Your task to perform on an android device: Clear the cart on newegg.com. Search for "macbook pro" on newegg.com, select the first entry, add it to the cart, then select checkout. Image 0: 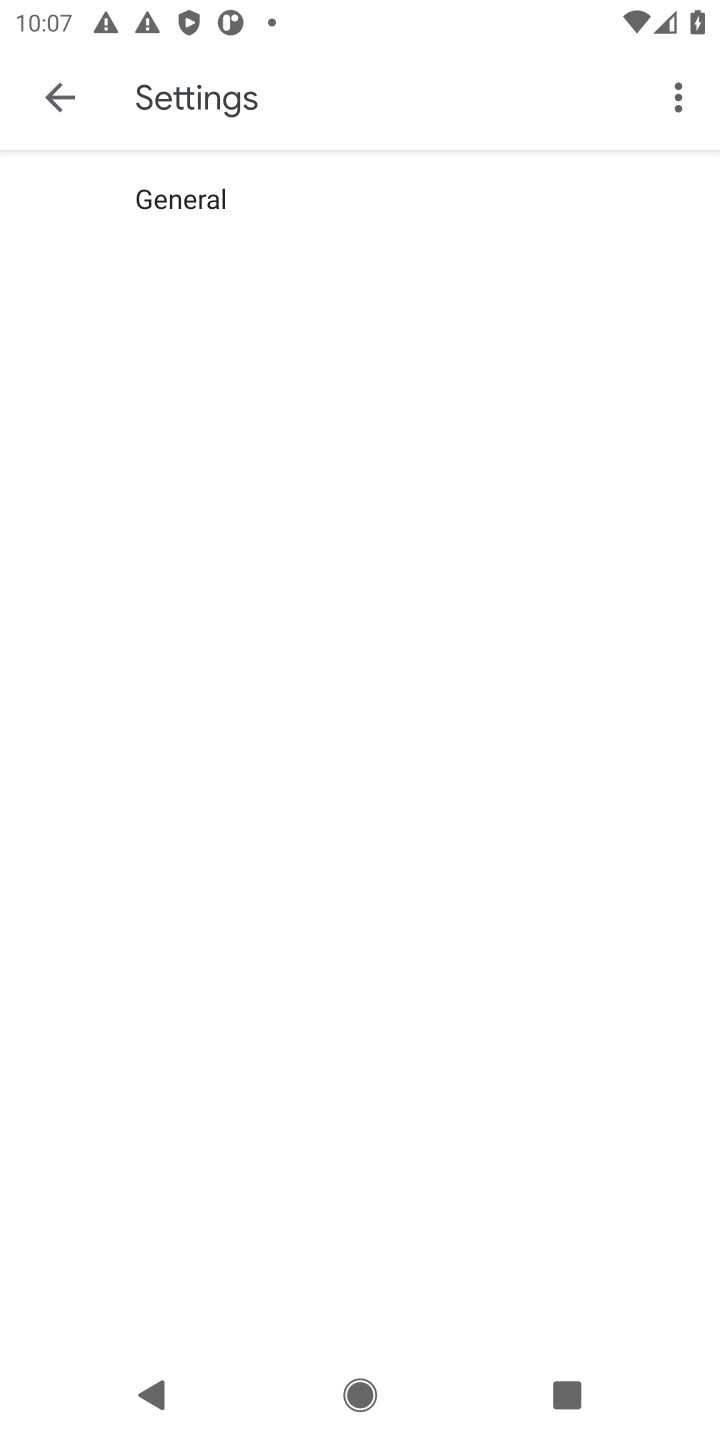
Step 0: press home button
Your task to perform on an android device: Clear the cart on newegg.com. Search for "macbook pro" on newegg.com, select the first entry, add it to the cart, then select checkout. Image 1: 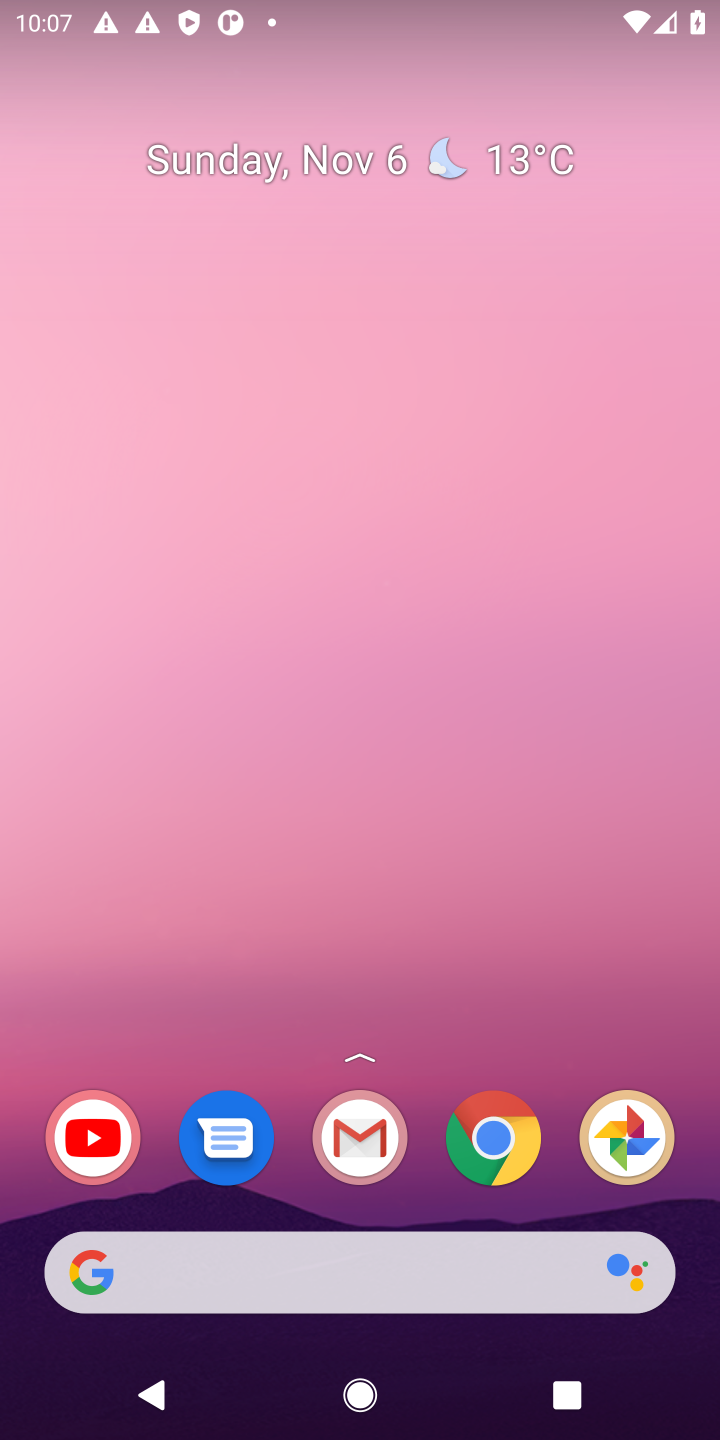
Step 1: click (489, 1137)
Your task to perform on an android device: Clear the cart on newegg.com. Search for "macbook pro" on newegg.com, select the first entry, add it to the cart, then select checkout. Image 2: 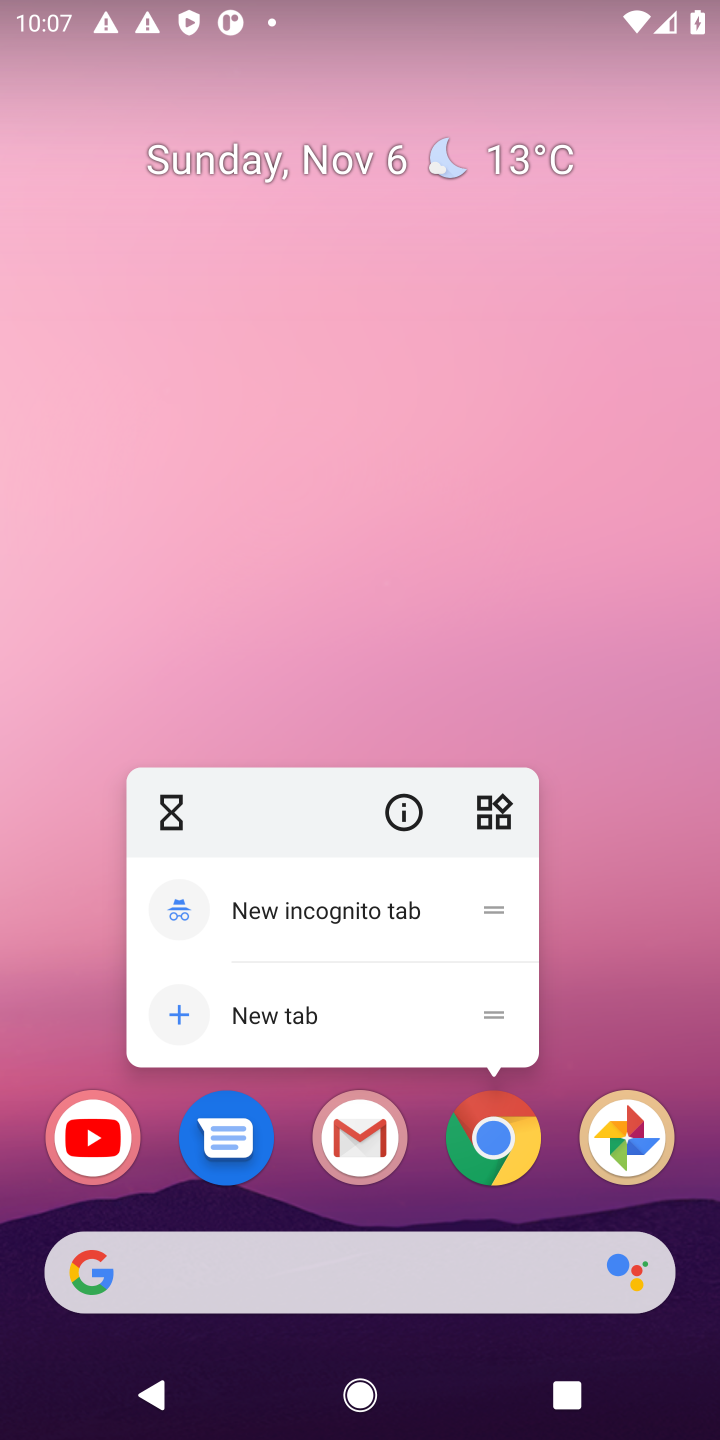
Step 2: click (495, 1137)
Your task to perform on an android device: Clear the cart on newegg.com. Search for "macbook pro" on newegg.com, select the first entry, add it to the cart, then select checkout. Image 3: 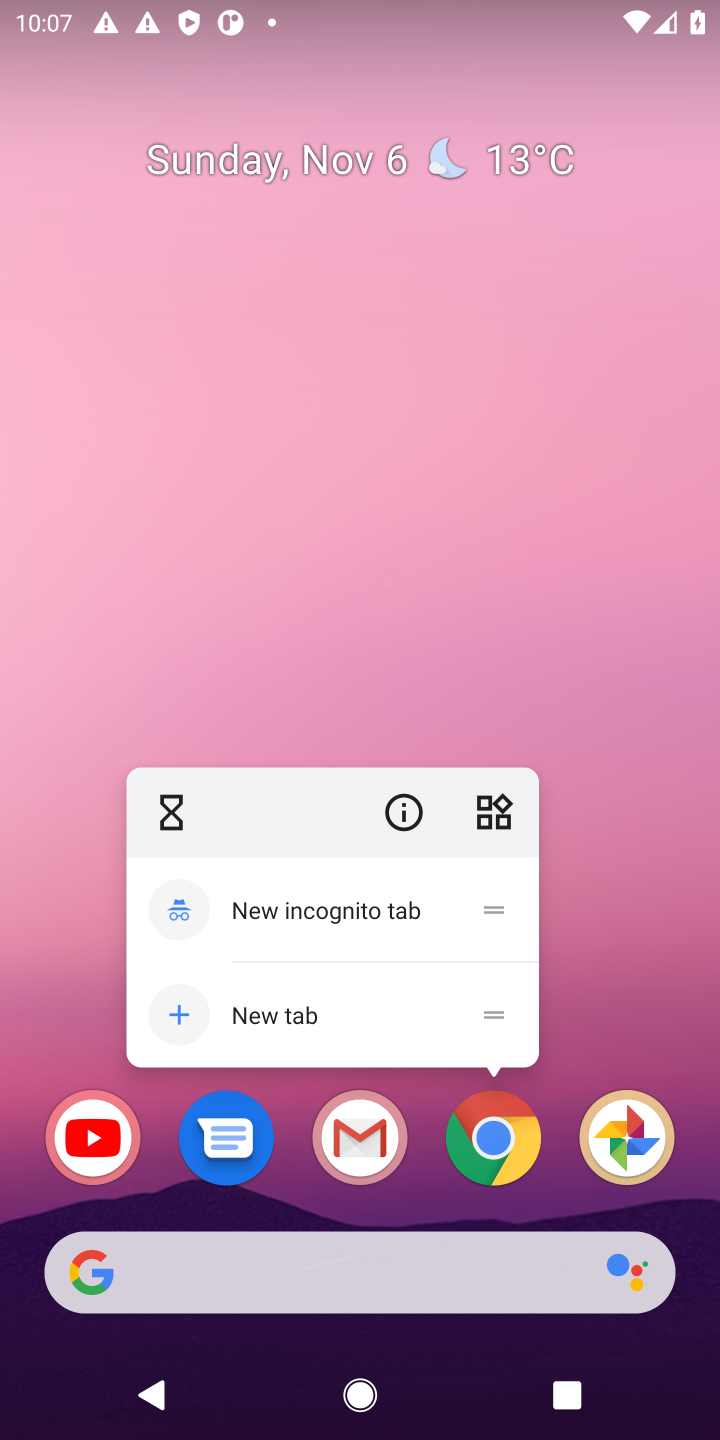
Step 3: click (495, 1157)
Your task to perform on an android device: Clear the cart on newegg.com. Search for "macbook pro" on newegg.com, select the first entry, add it to the cart, then select checkout. Image 4: 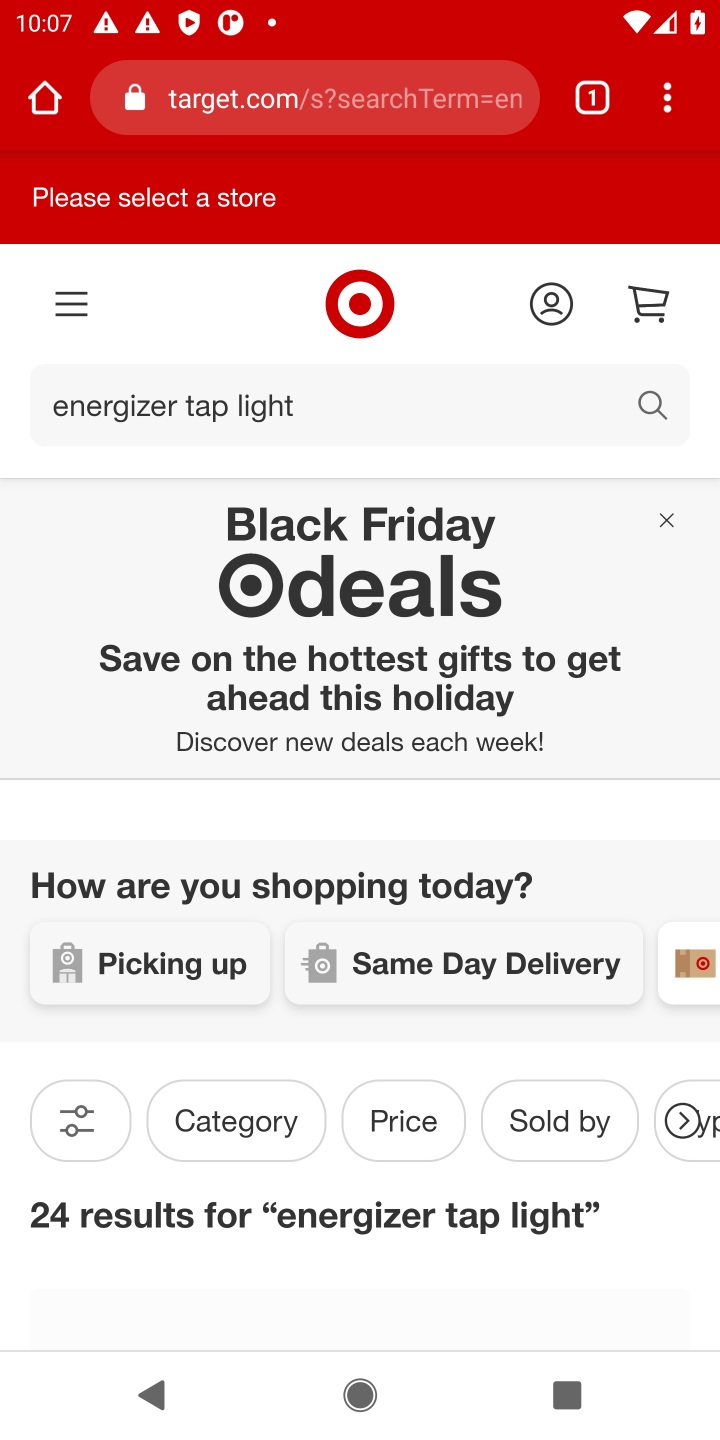
Step 4: click (381, 63)
Your task to perform on an android device: Clear the cart on newegg.com. Search for "macbook pro" on newegg.com, select the first entry, add it to the cart, then select checkout. Image 5: 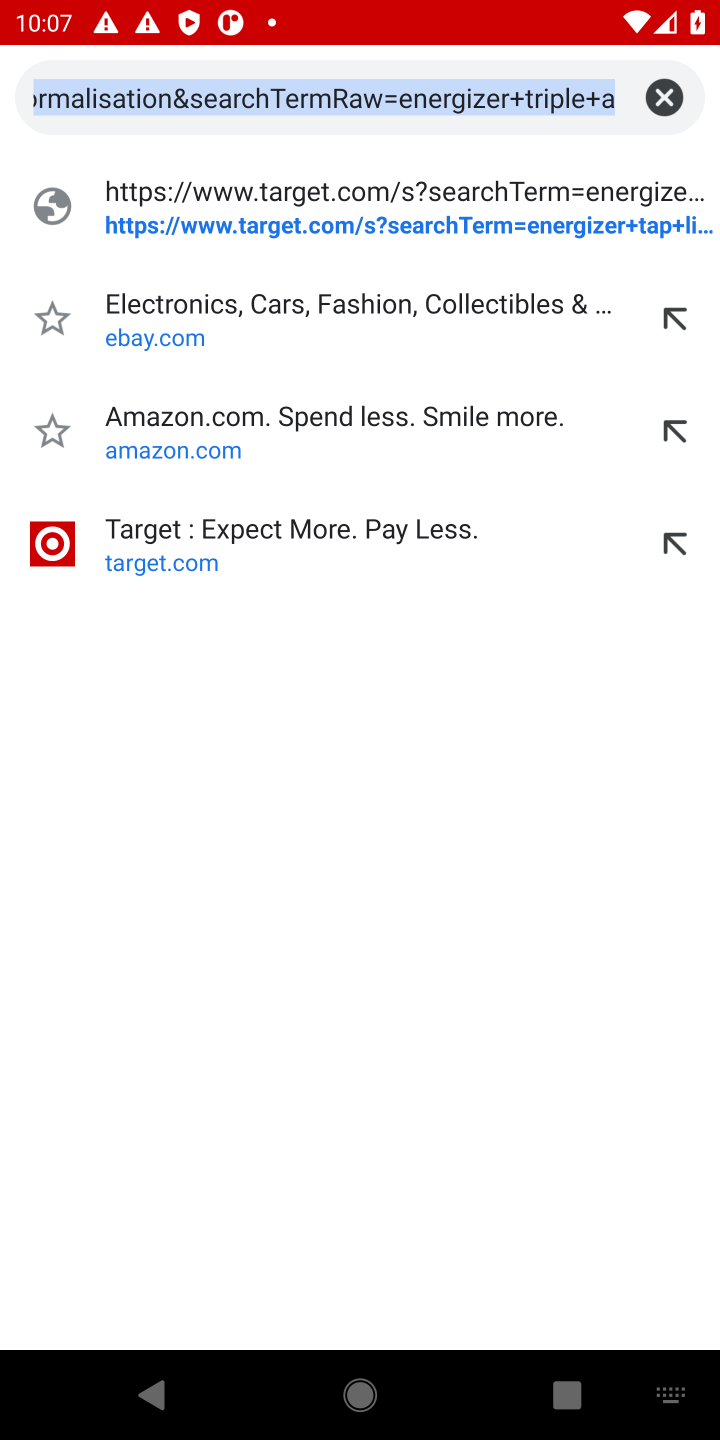
Step 5: click (669, 99)
Your task to perform on an android device: Clear the cart on newegg.com. Search for "macbook pro" on newegg.com, select the first entry, add it to the cart, then select checkout. Image 6: 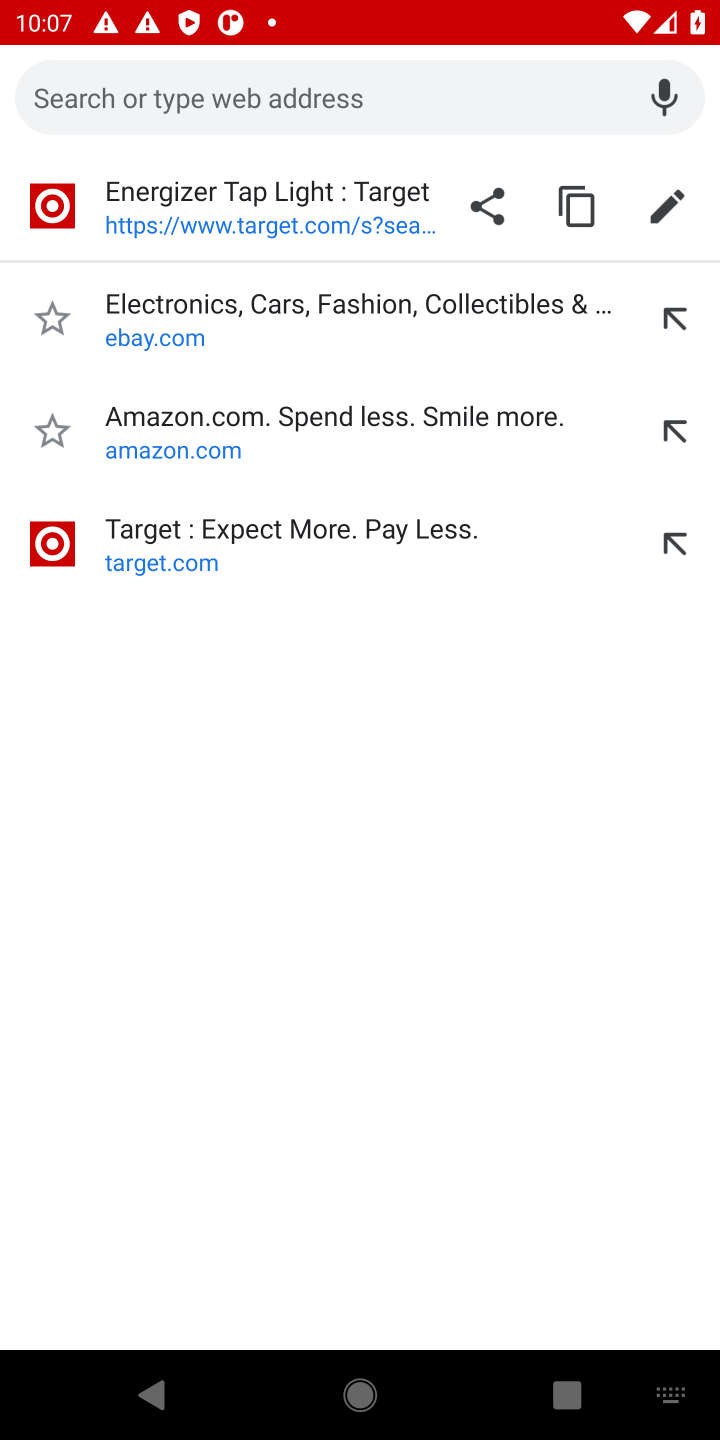
Step 6: type "newegg.com"
Your task to perform on an android device: Clear the cart on newegg.com. Search for "macbook pro" on newegg.com, select the first entry, add it to the cart, then select checkout. Image 7: 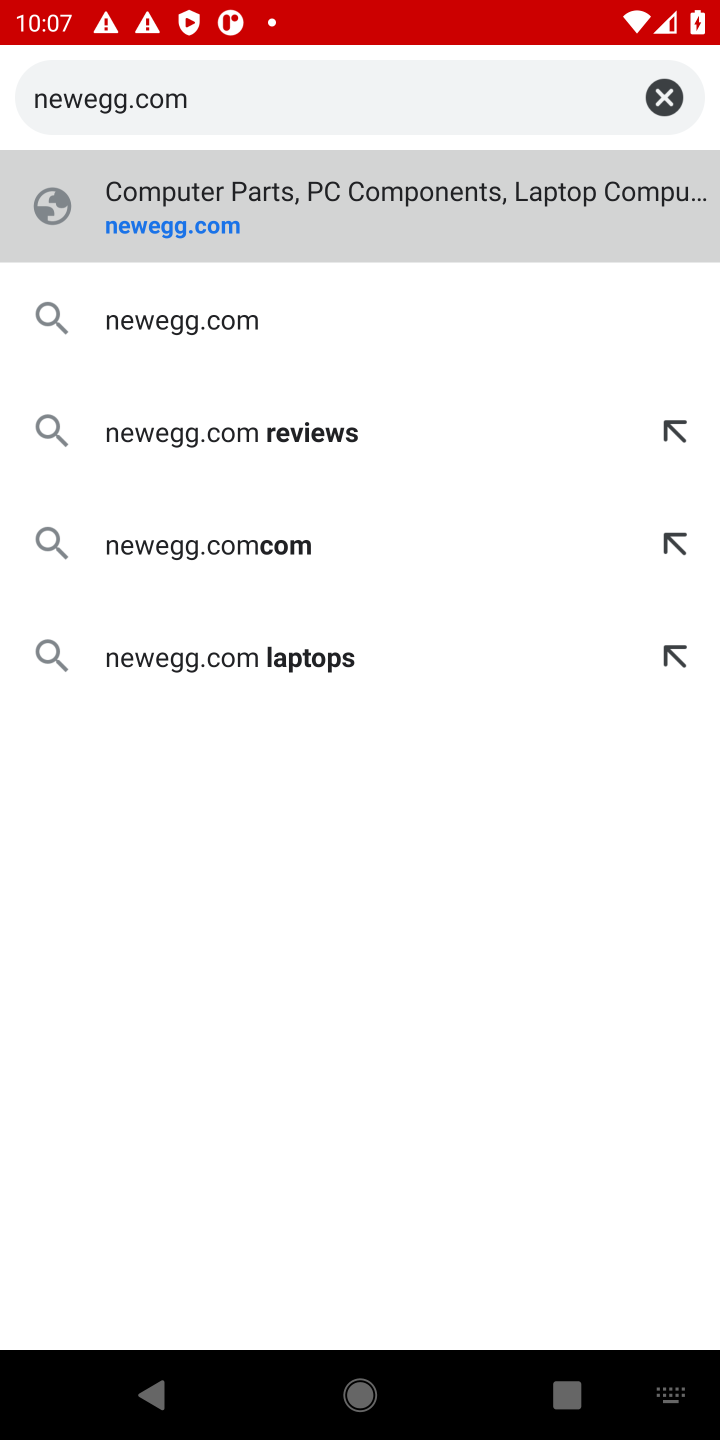
Step 7: click (180, 206)
Your task to perform on an android device: Clear the cart on newegg.com. Search for "macbook pro" on newegg.com, select the first entry, add it to the cart, then select checkout. Image 8: 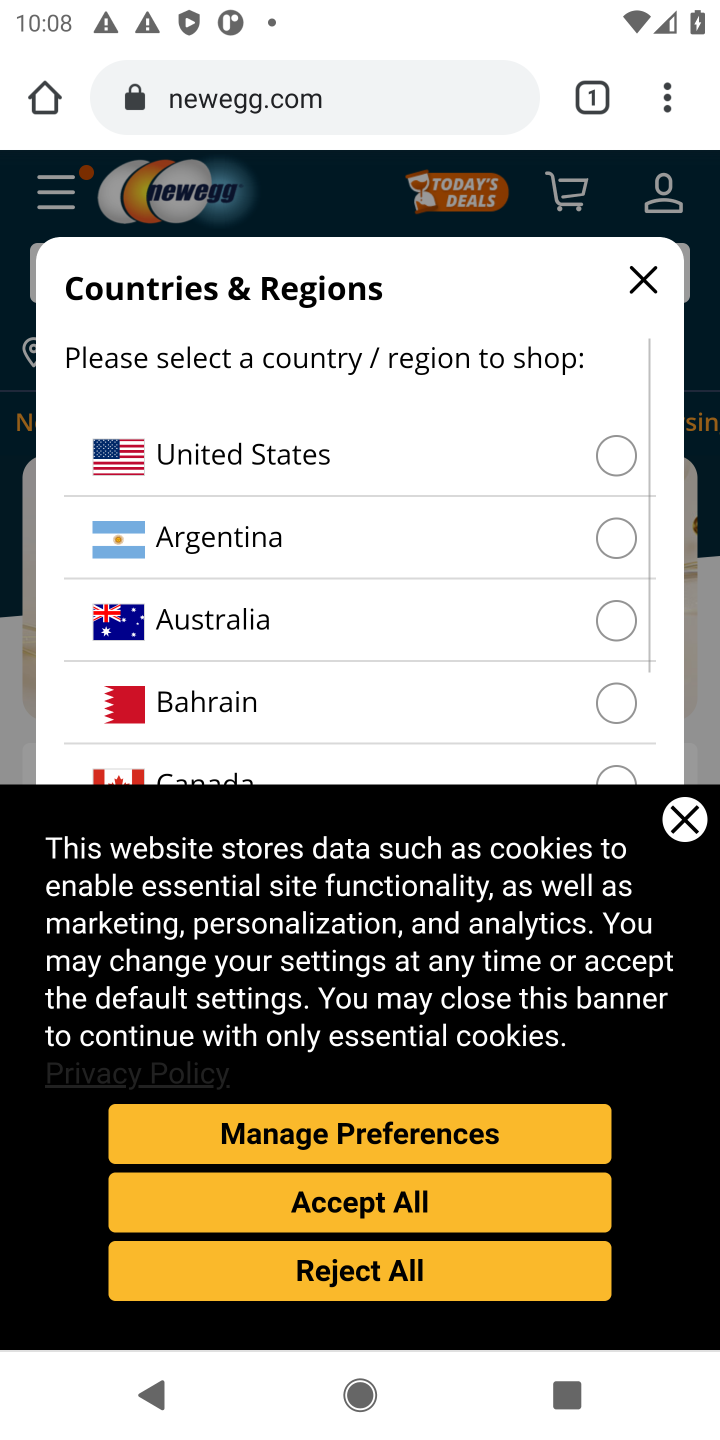
Step 8: click (617, 454)
Your task to perform on an android device: Clear the cart on newegg.com. Search for "macbook pro" on newegg.com, select the first entry, add it to the cart, then select checkout. Image 9: 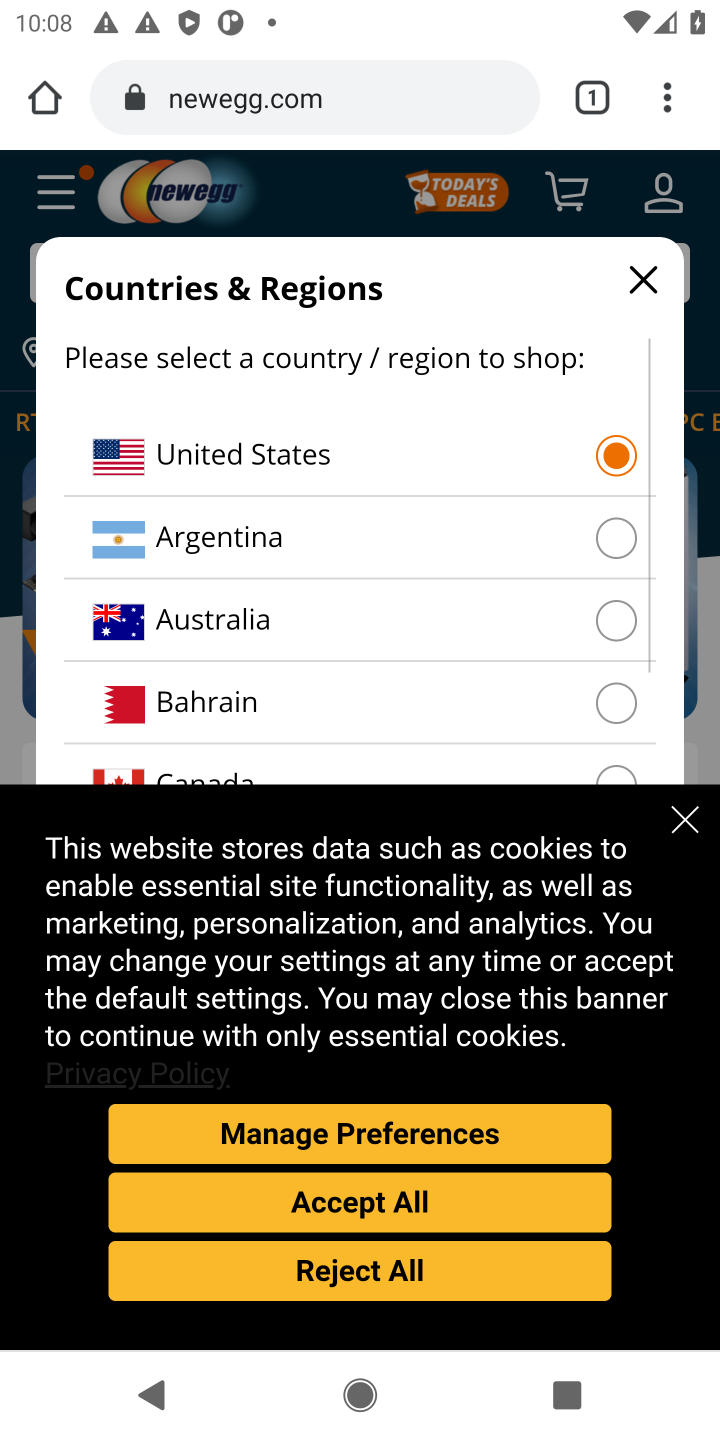
Step 9: click (328, 1203)
Your task to perform on an android device: Clear the cart on newegg.com. Search for "macbook pro" on newegg.com, select the first entry, add it to the cart, then select checkout. Image 10: 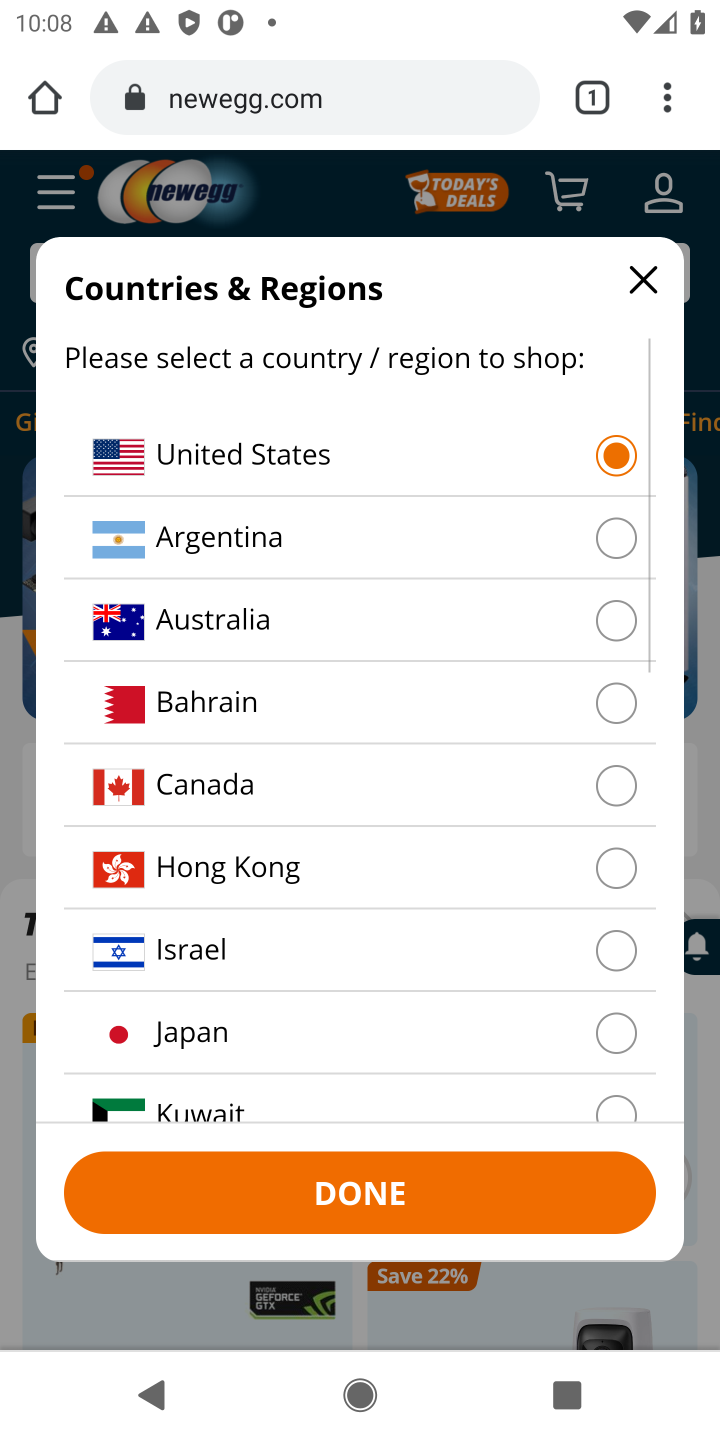
Step 10: click (386, 1183)
Your task to perform on an android device: Clear the cart on newegg.com. Search for "macbook pro" on newegg.com, select the first entry, add it to the cart, then select checkout. Image 11: 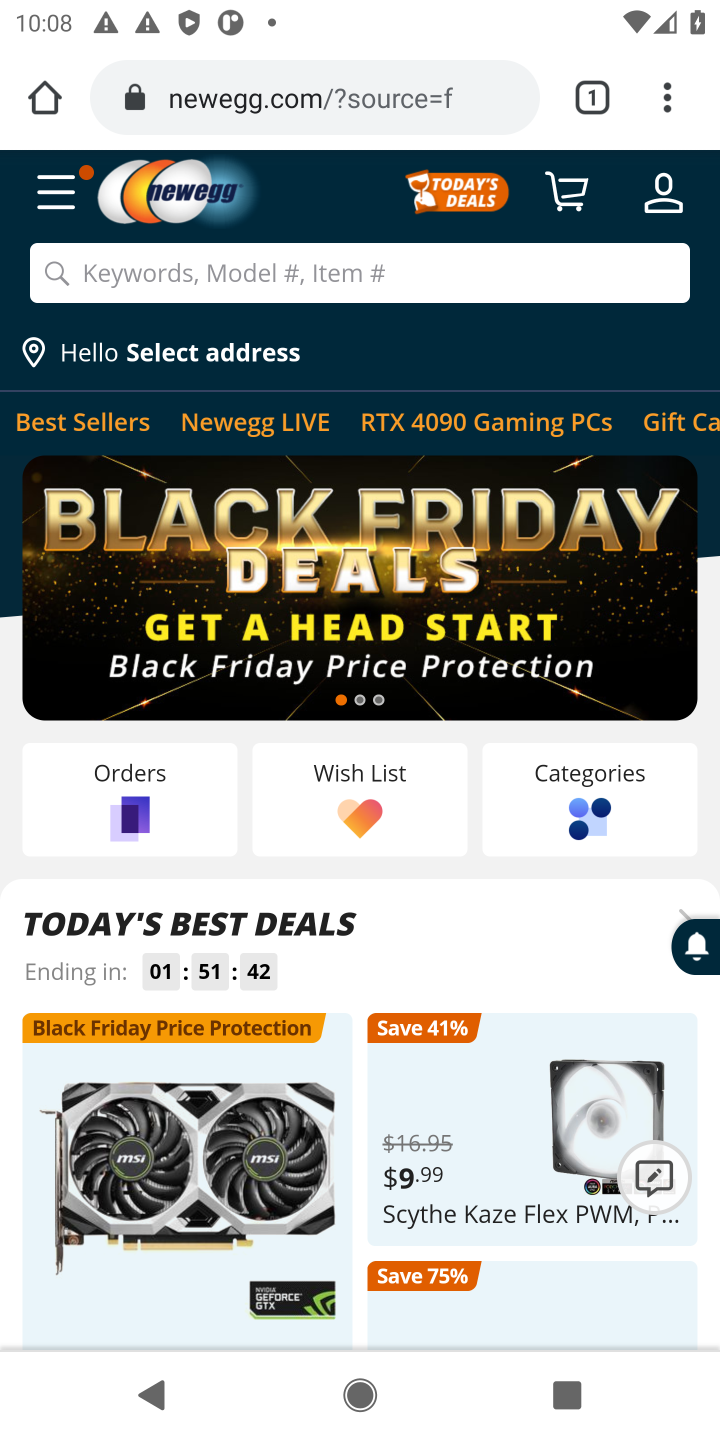
Step 11: click (570, 185)
Your task to perform on an android device: Clear the cart on newegg.com. Search for "macbook pro" on newegg.com, select the first entry, add it to the cart, then select checkout. Image 12: 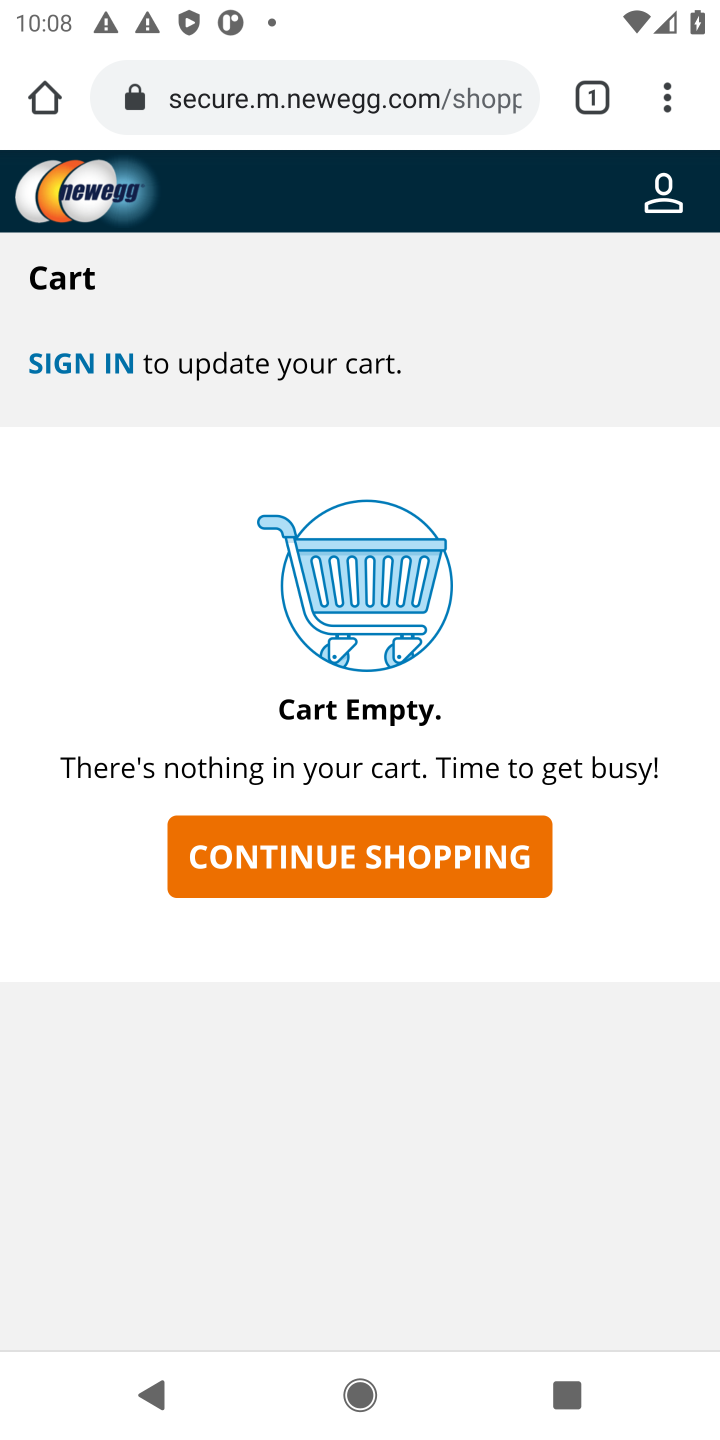
Step 12: click (356, 859)
Your task to perform on an android device: Clear the cart on newegg.com. Search for "macbook pro" on newegg.com, select the first entry, add it to the cart, then select checkout. Image 13: 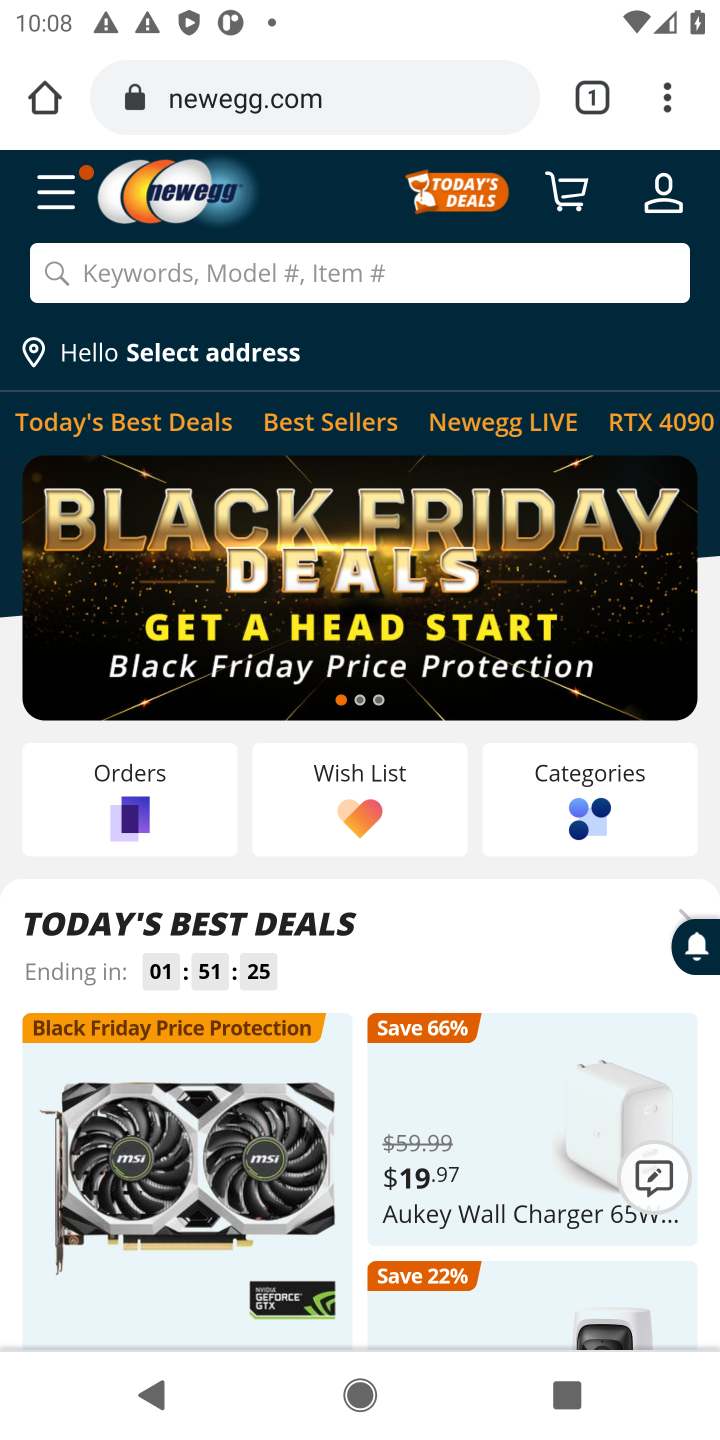
Step 13: click (232, 256)
Your task to perform on an android device: Clear the cart on newegg.com. Search for "macbook pro" on newegg.com, select the first entry, add it to the cart, then select checkout. Image 14: 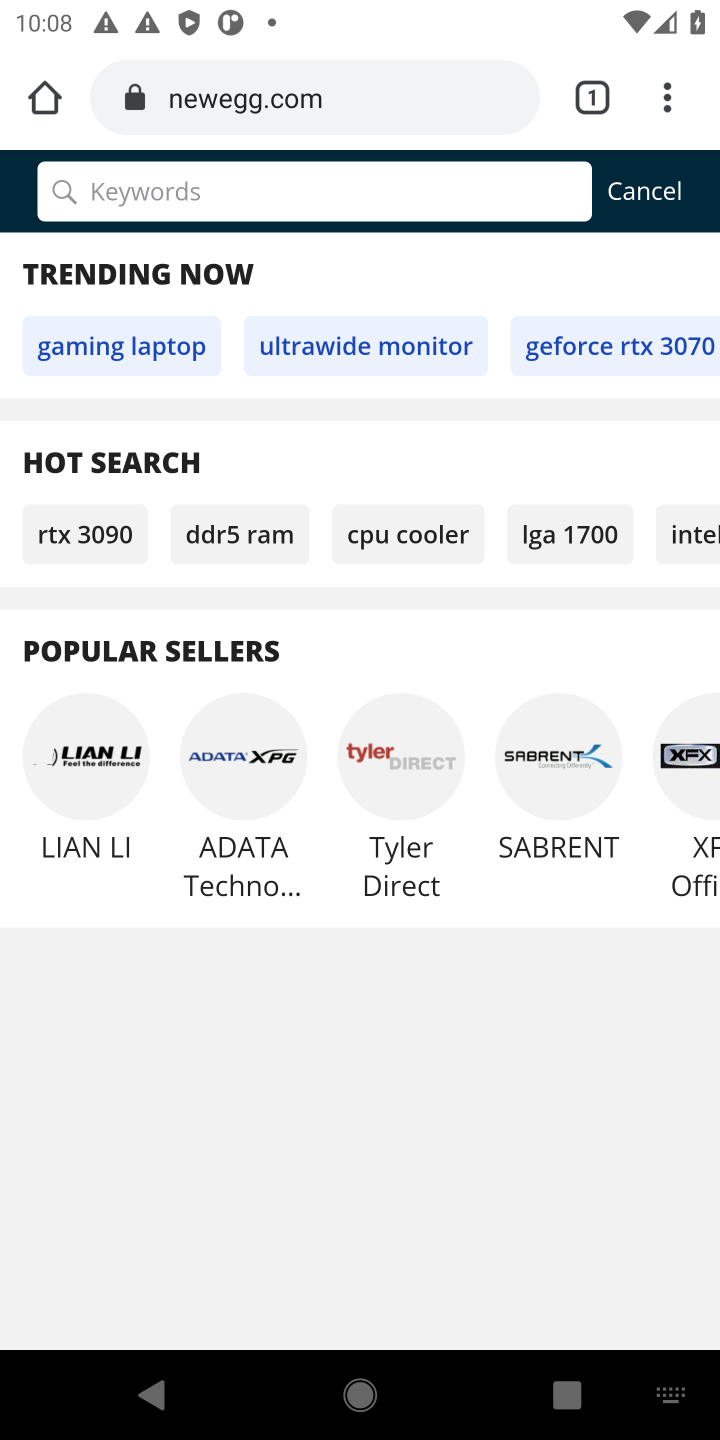
Step 14: type "macbook pro"
Your task to perform on an android device: Clear the cart on newegg.com. Search for "macbook pro" on newegg.com, select the first entry, add it to the cart, then select checkout. Image 15: 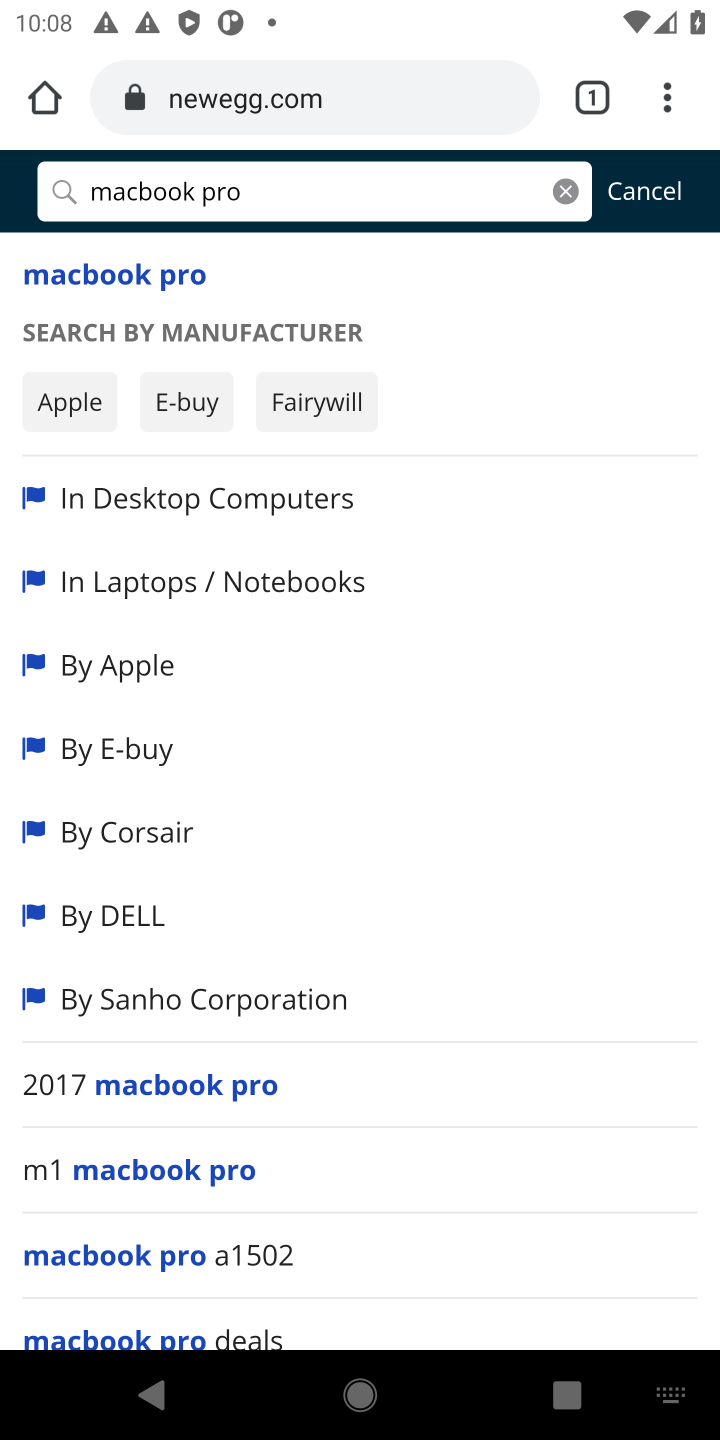
Step 15: click (56, 259)
Your task to perform on an android device: Clear the cart on newegg.com. Search for "macbook pro" on newegg.com, select the first entry, add it to the cart, then select checkout. Image 16: 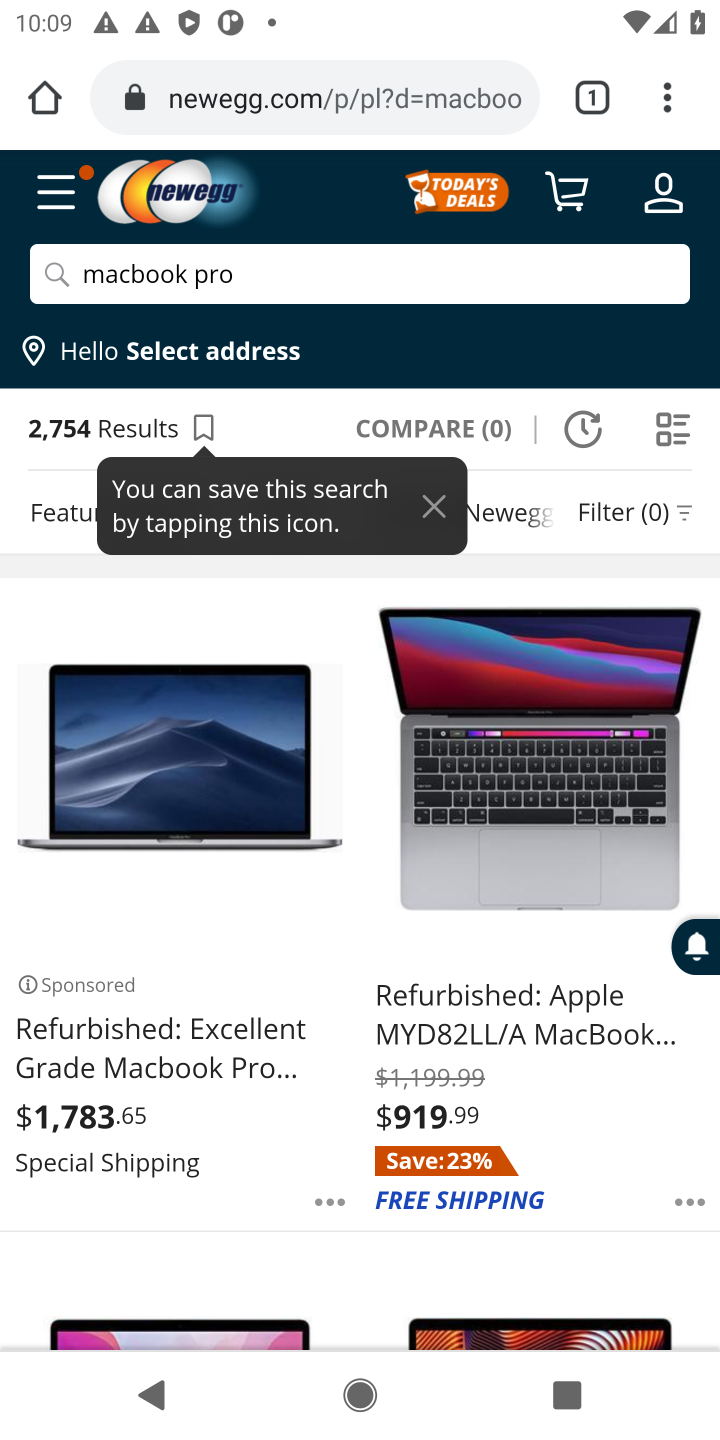
Step 16: click (121, 1052)
Your task to perform on an android device: Clear the cart on newegg.com. Search for "macbook pro" on newegg.com, select the first entry, add it to the cart, then select checkout. Image 17: 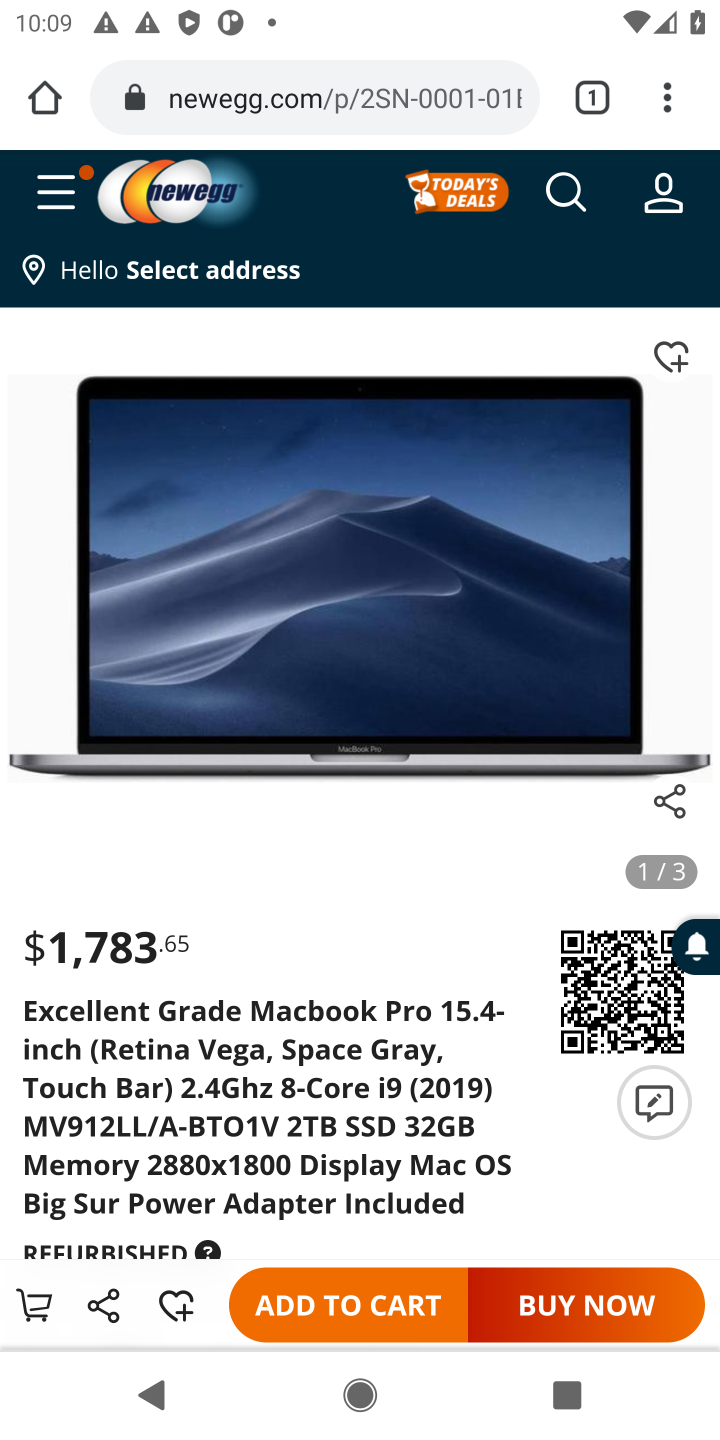
Step 17: click (338, 1298)
Your task to perform on an android device: Clear the cart on newegg.com. Search for "macbook pro" on newegg.com, select the first entry, add it to the cart, then select checkout. Image 18: 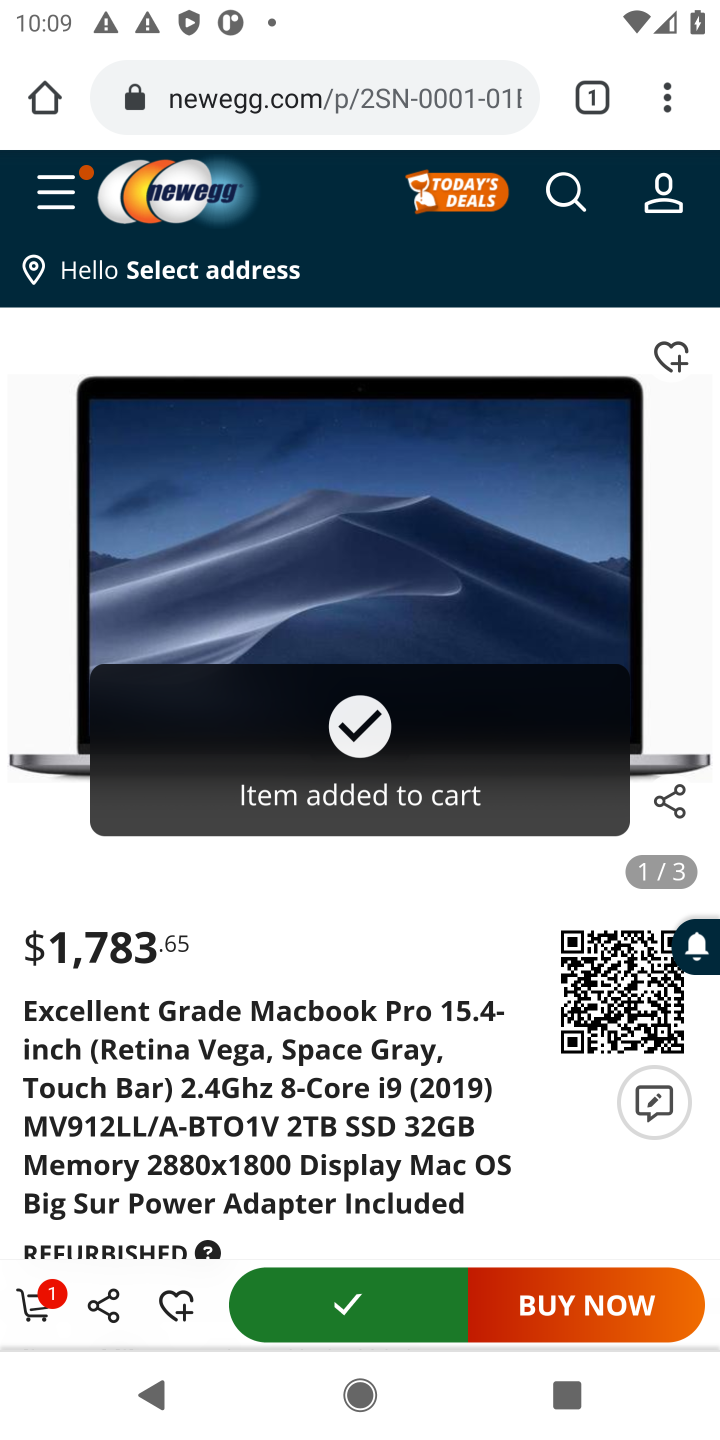
Step 18: click (43, 1302)
Your task to perform on an android device: Clear the cart on newegg.com. Search for "macbook pro" on newegg.com, select the first entry, add it to the cart, then select checkout. Image 19: 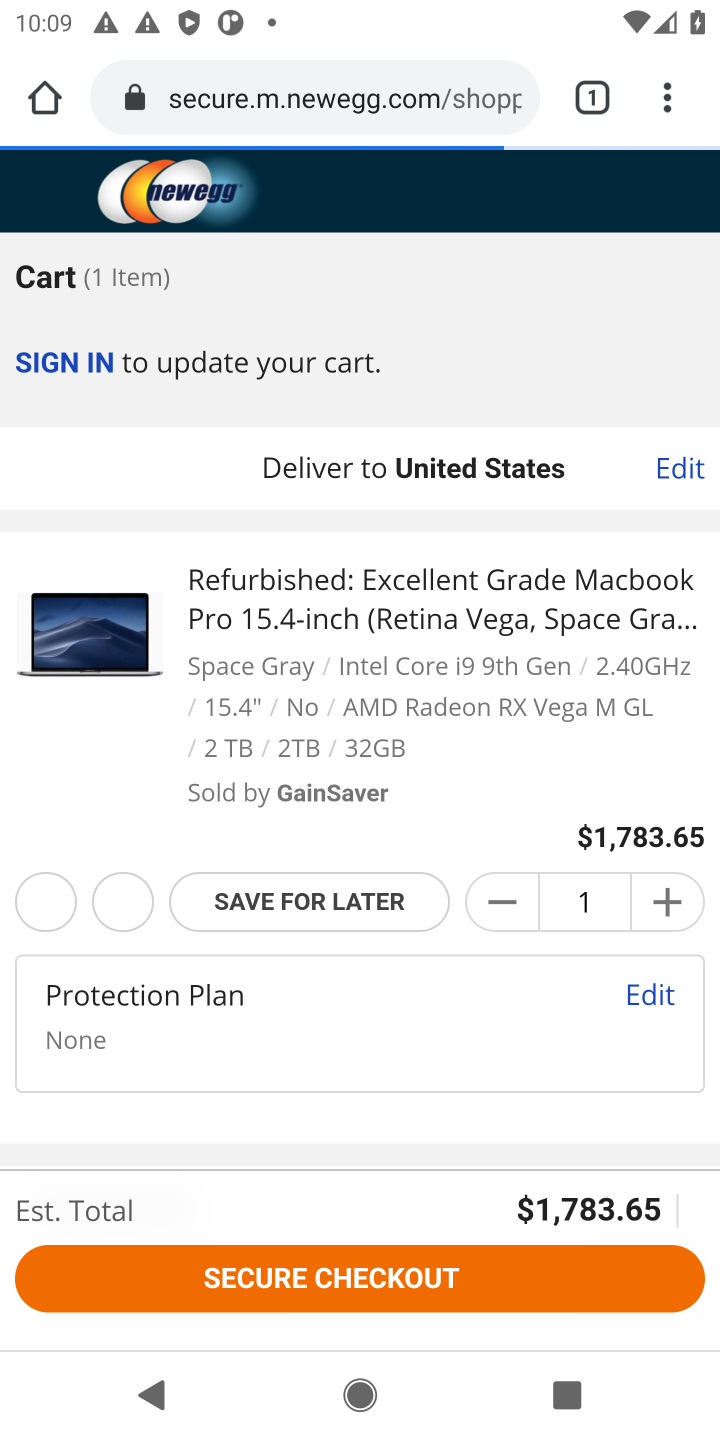
Step 19: click (35, 1305)
Your task to perform on an android device: Clear the cart on newegg.com. Search for "macbook pro" on newegg.com, select the first entry, add it to the cart, then select checkout. Image 20: 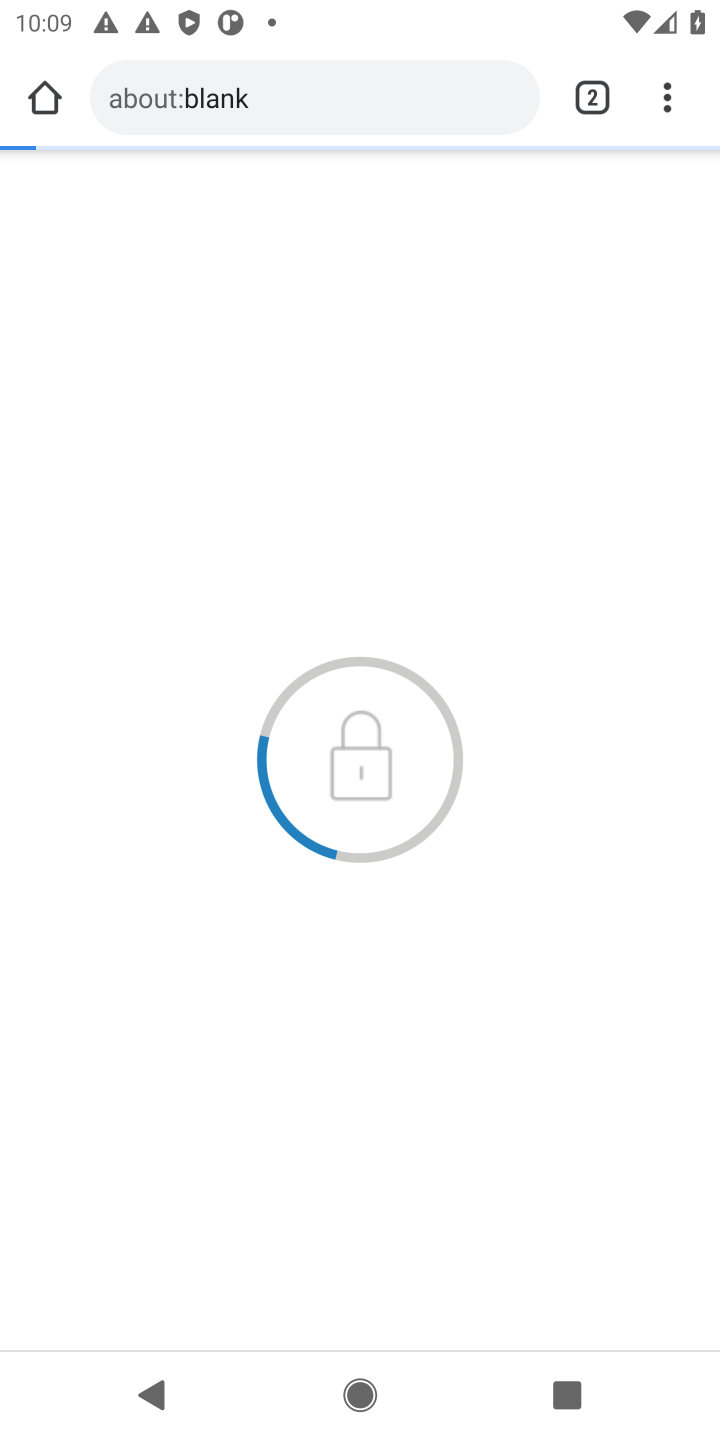
Step 20: task complete